Your task to perform on an android device: toggle translation in the chrome app Image 0: 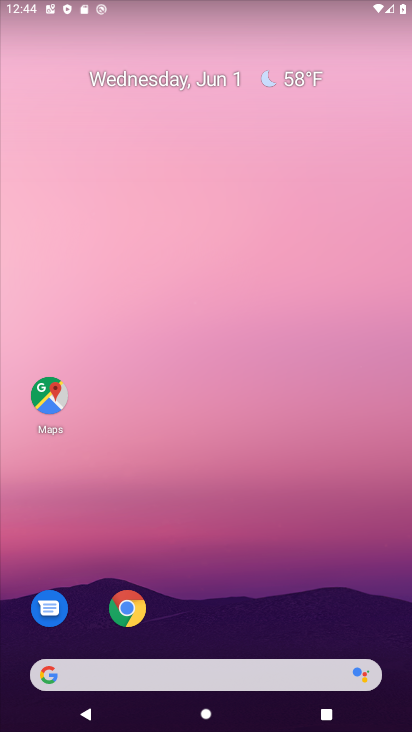
Step 0: click (124, 617)
Your task to perform on an android device: toggle translation in the chrome app Image 1: 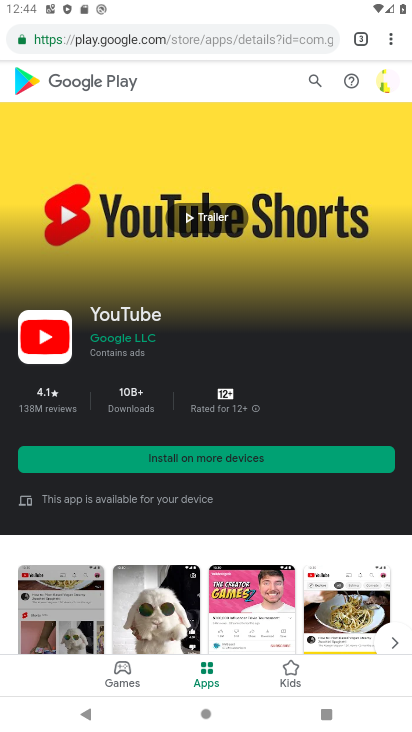
Step 1: click (390, 25)
Your task to perform on an android device: toggle translation in the chrome app Image 2: 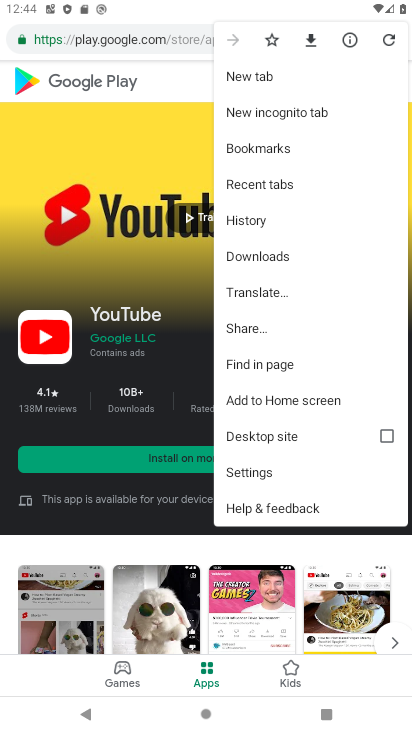
Step 2: click (277, 472)
Your task to perform on an android device: toggle translation in the chrome app Image 3: 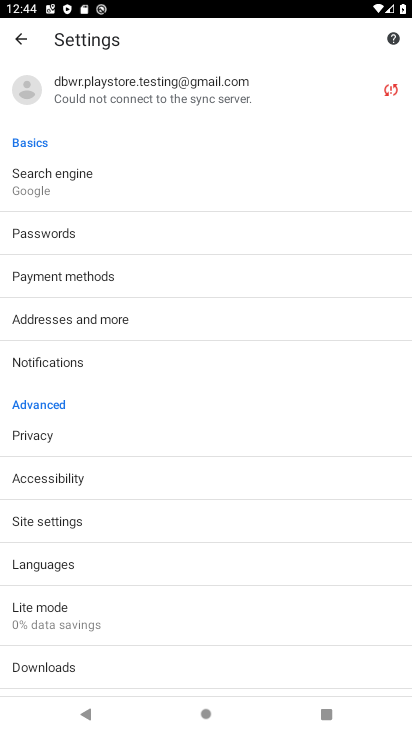
Step 3: click (72, 570)
Your task to perform on an android device: toggle translation in the chrome app Image 4: 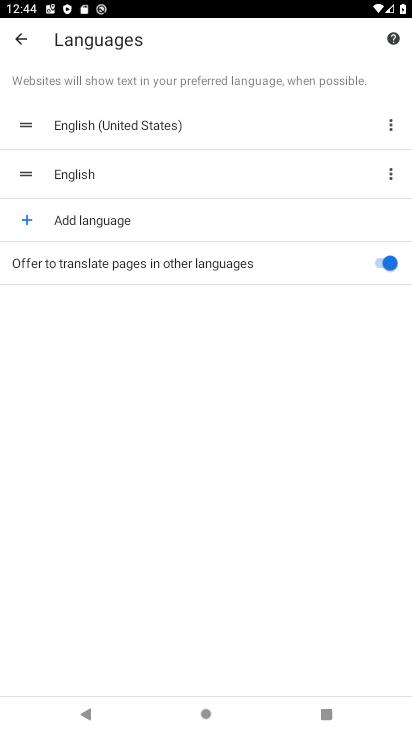
Step 4: click (375, 260)
Your task to perform on an android device: toggle translation in the chrome app Image 5: 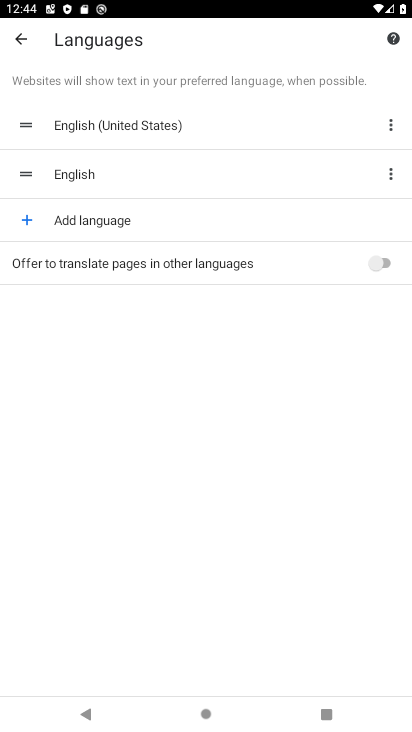
Step 5: task complete